Your task to perform on an android device: turn pop-ups off in chrome Image 0: 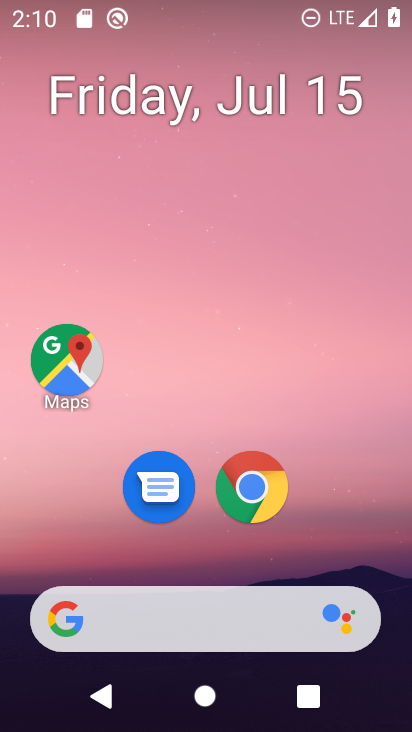
Step 0: drag from (241, 607) to (245, 300)
Your task to perform on an android device: turn pop-ups off in chrome Image 1: 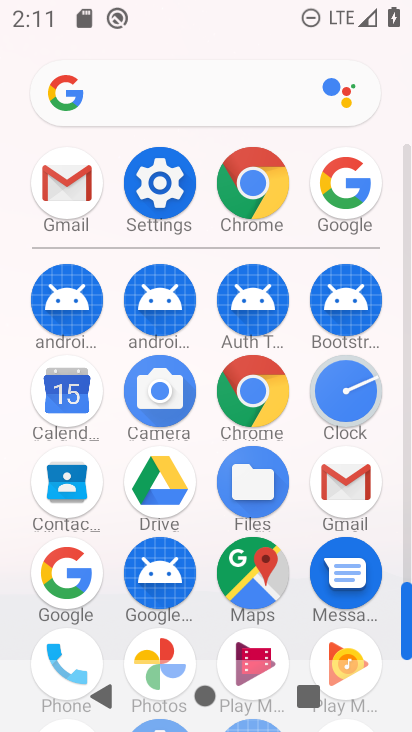
Step 1: click (264, 391)
Your task to perform on an android device: turn pop-ups off in chrome Image 2: 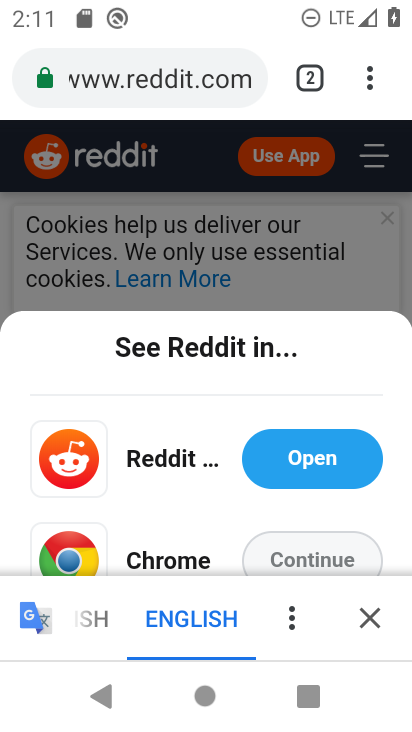
Step 2: click (369, 85)
Your task to perform on an android device: turn pop-ups off in chrome Image 3: 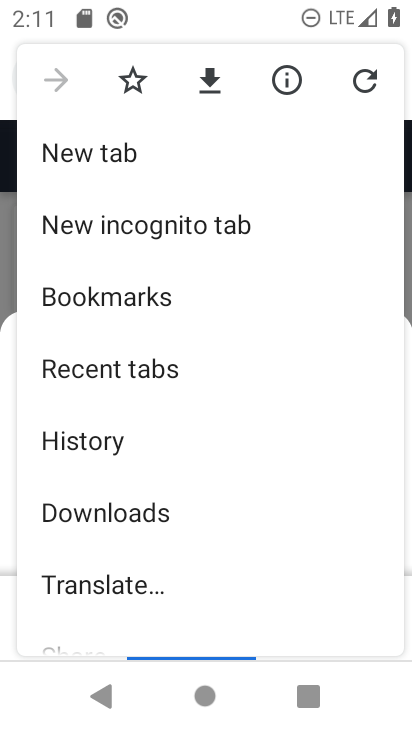
Step 3: drag from (171, 582) to (206, 18)
Your task to perform on an android device: turn pop-ups off in chrome Image 4: 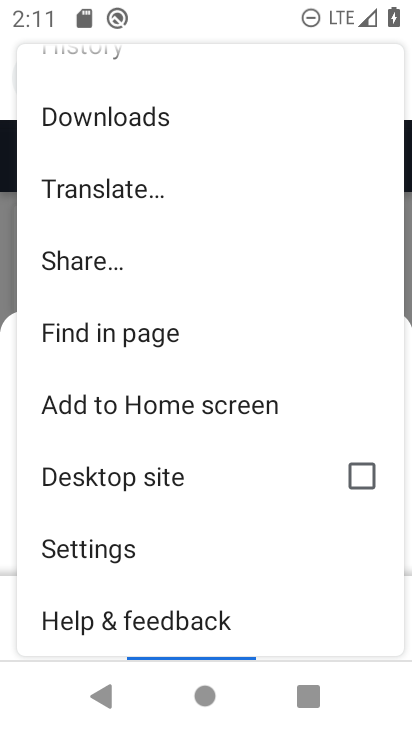
Step 4: click (124, 552)
Your task to perform on an android device: turn pop-ups off in chrome Image 5: 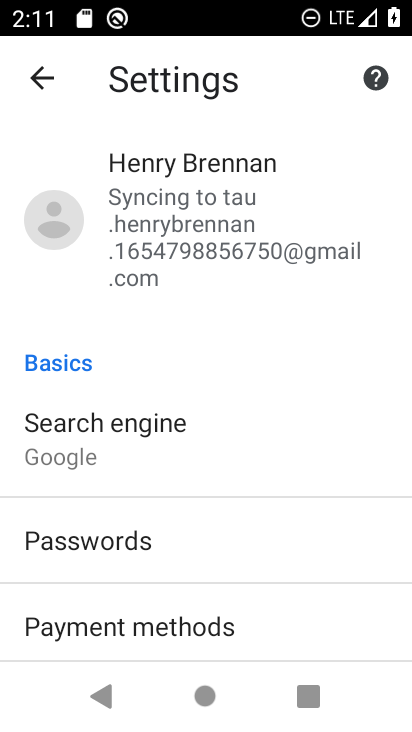
Step 5: drag from (124, 552) to (142, 247)
Your task to perform on an android device: turn pop-ups off in chrome Image 6: 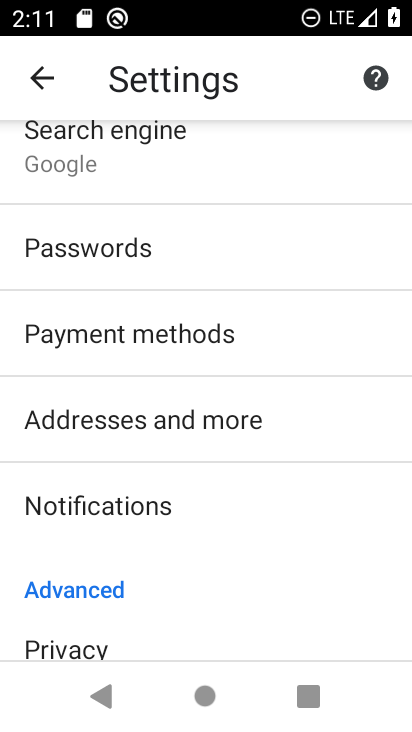
Step 6: drag from (158, 540) to (190, 187)
Your task to perform on an android device: turn pop-ups off in chrome Image 7: 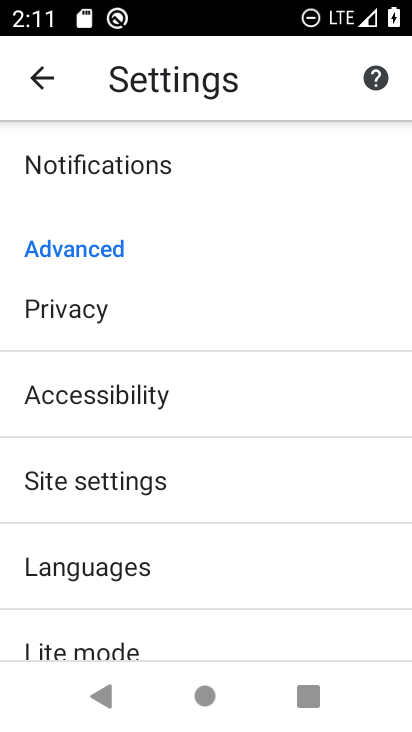
Step 7: drag from (175, 520) to (234, 294)
Your task to perform on an android device: turn pop-ups off in chrome Image 8: 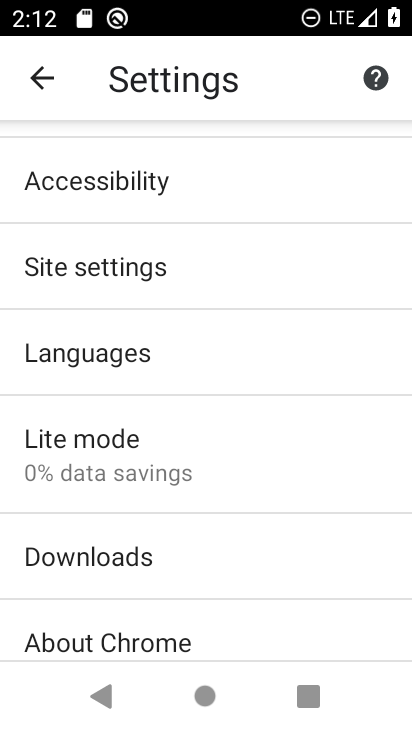
Step 8: click (89, 264)
Your task to perform on an android device: turn pop-ups off in chrome Image 9: 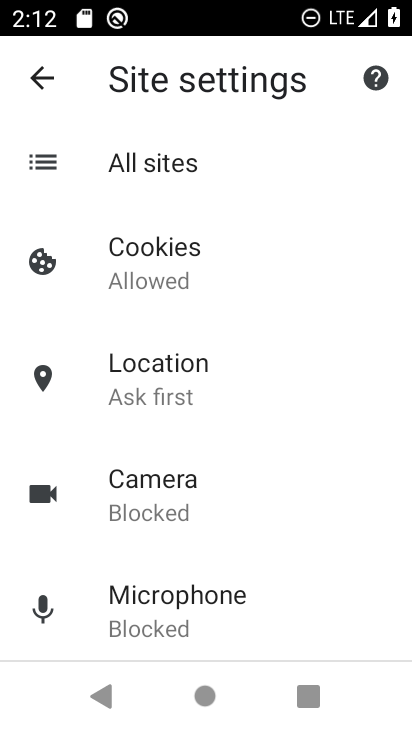
Step 9: drag from (154, 522) to (187, 301)
Your task to perform on an android device: turn pop-ups off in chrome Image 10: 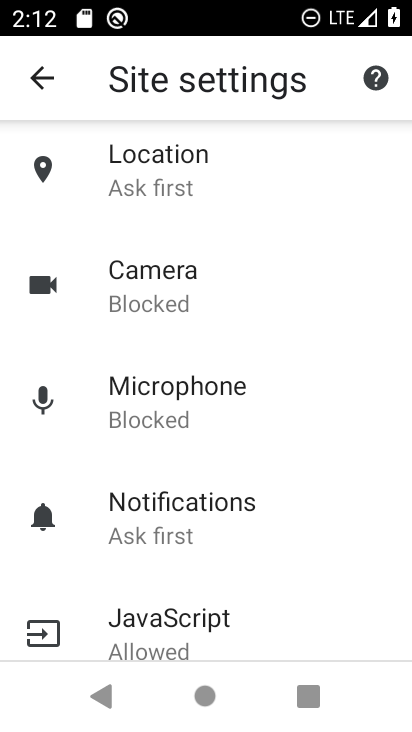
Step 10: drag from (228, 516) to (243, 311)
Your task to perform on an android device: turn pop-ups off in chrome Image 11: 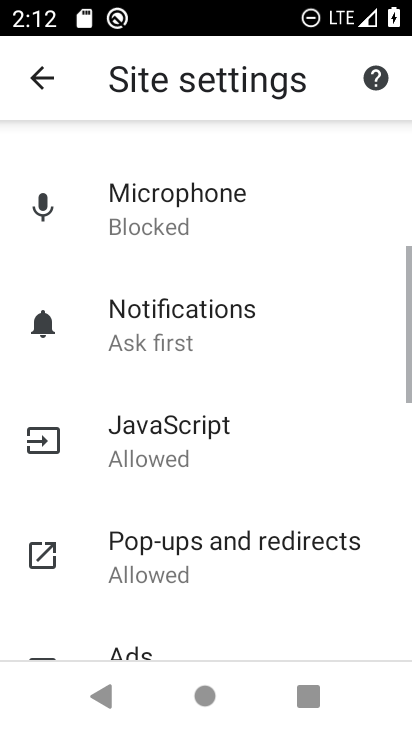
Step 11: drag from (242, 530) to (233, 255)
Your task to perform on an android device: turn pop-ups off in chrome Image 12: 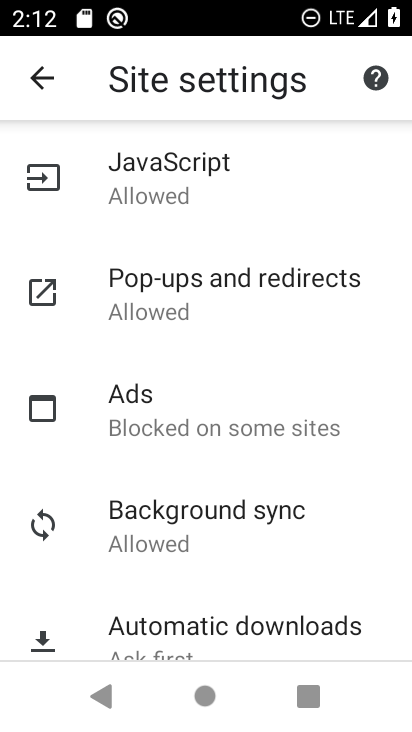
Step 12: click (164, 294)
Your task to perform on an android device: turn pop-ups off in chrome Image 13: 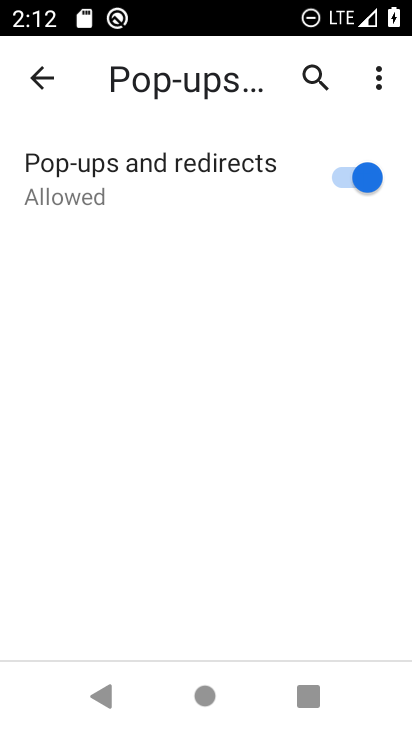
Step 13: click (336, 180)
Your task to perform on an android device: turn pop-ups off in chrome Image 14: 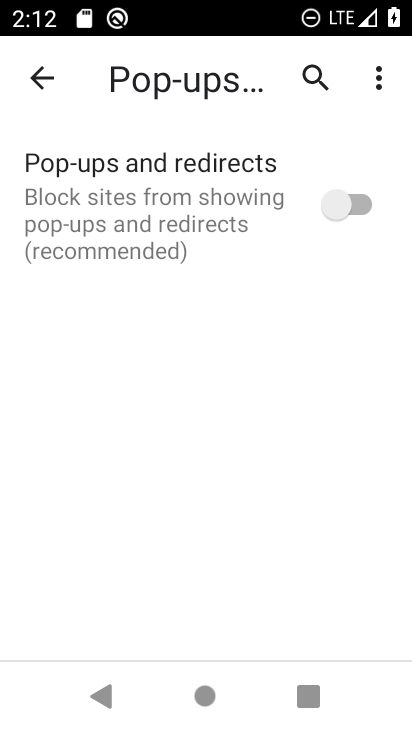
Step 14: task complete